Your task to perform on an android device: install app "Google Find My Device" Image 0: 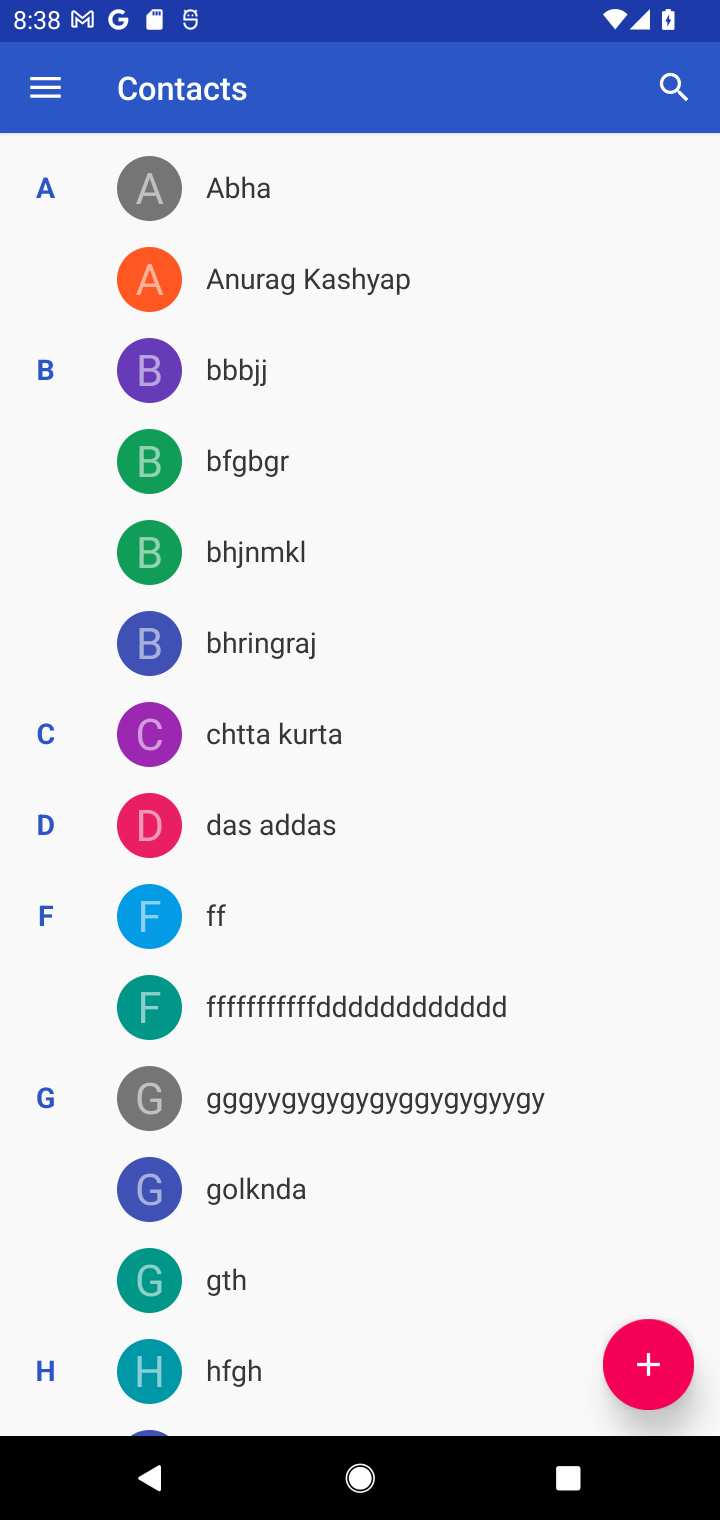
Step 0: press home button
Your task to perform on an android device: install app "Google Find My Device" Image 1: 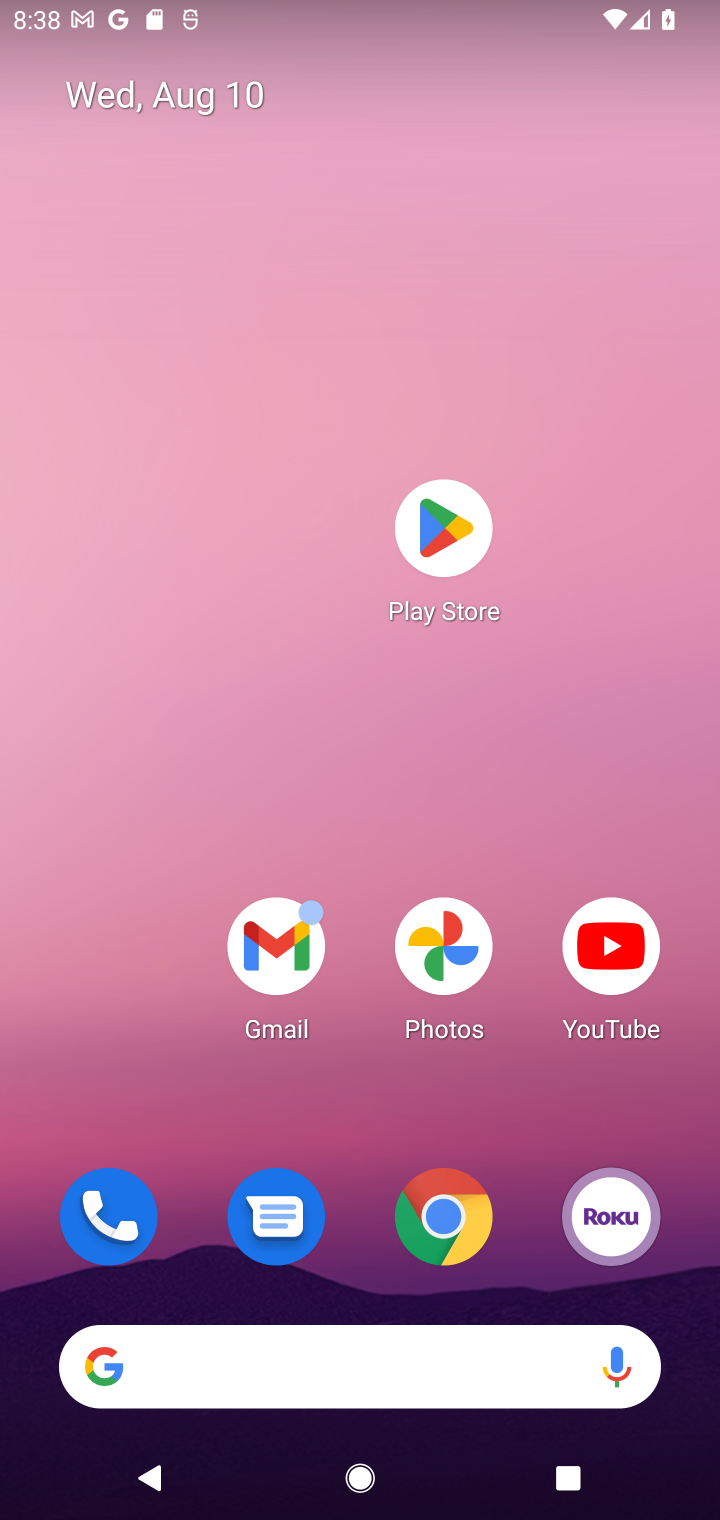
Step 1: click (442, 527)
Your task to perform on an android device: install app "Google Find My Device" Image 2: 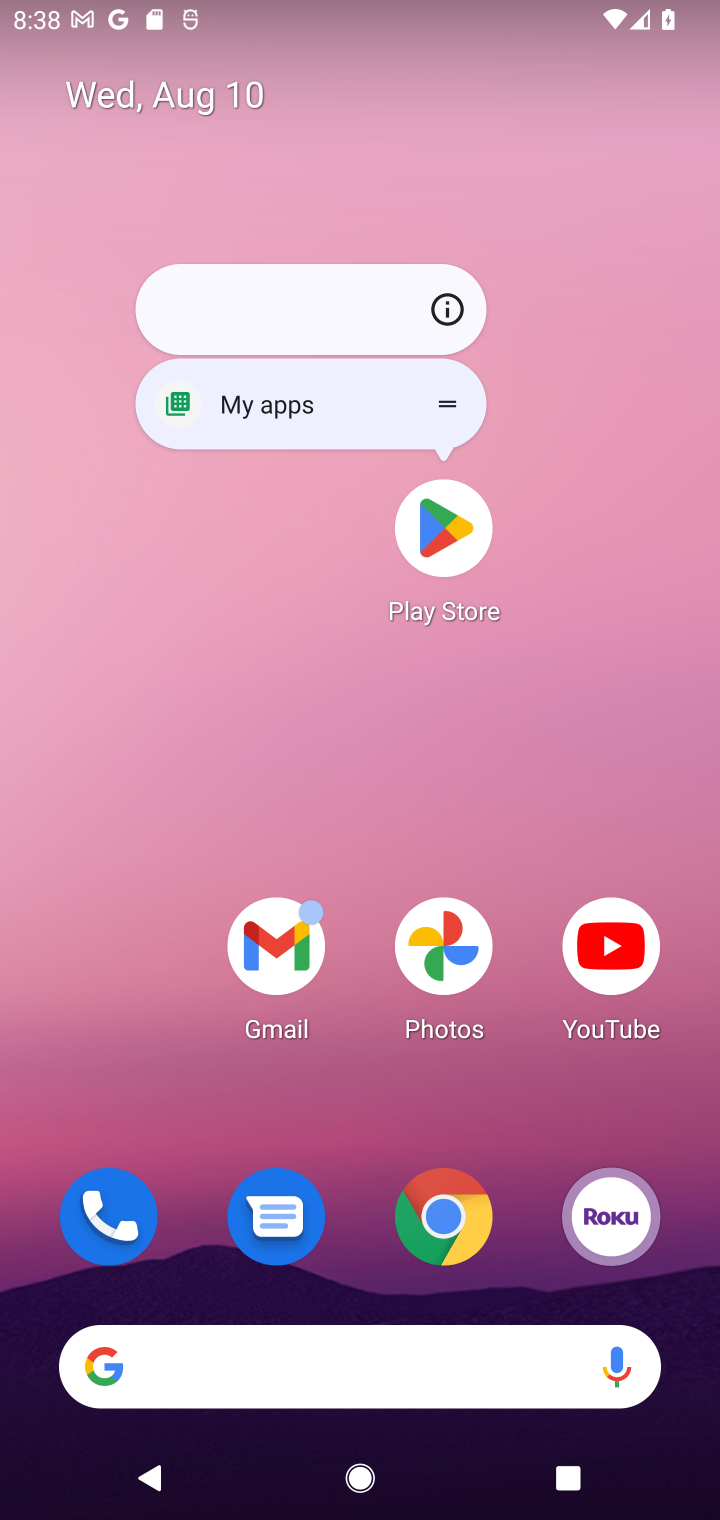
Step 2: click (442, 531)
Your task to perform on an android device: install app "Google Find My Device" Image 3: 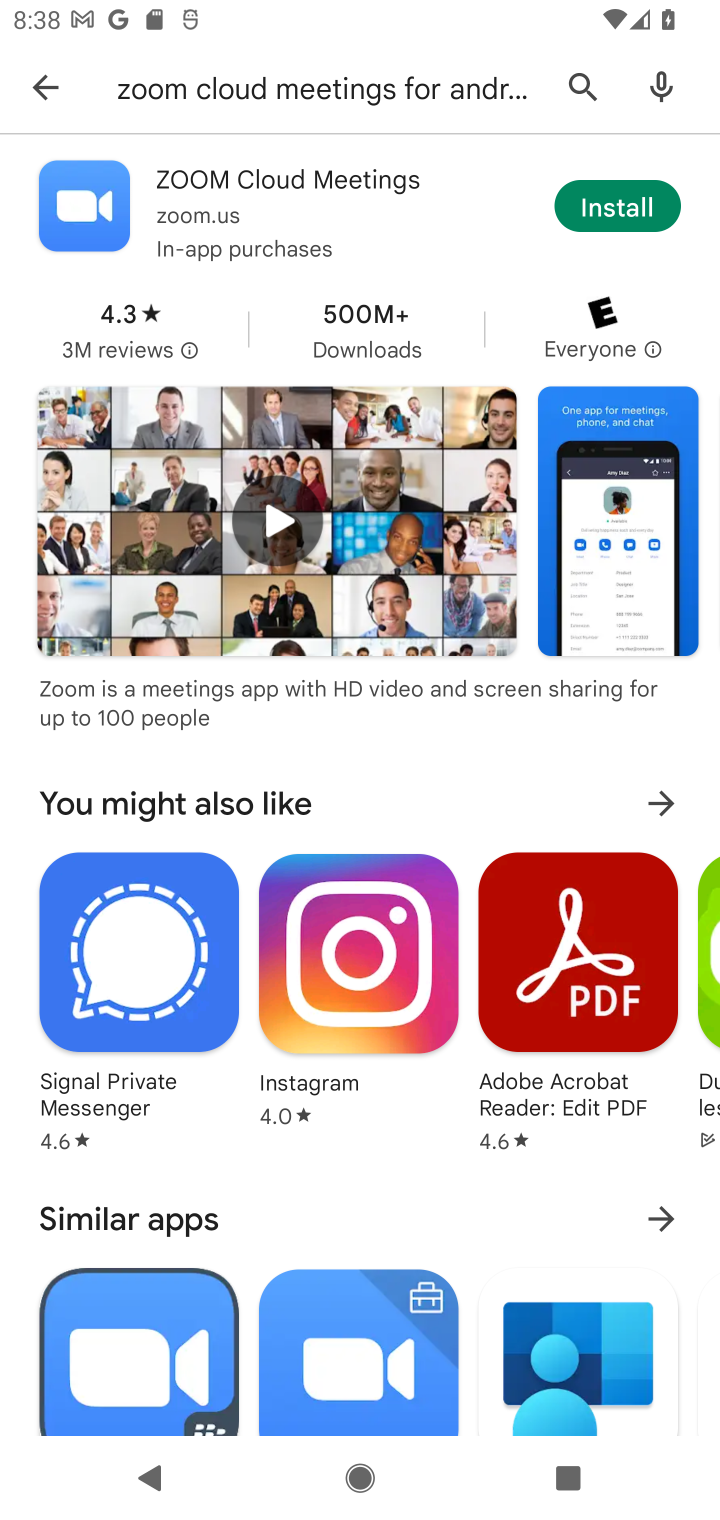
Step 3: click (567, 79)
Your task to perform on an android device: install app "Google Find My Device" Image 4: 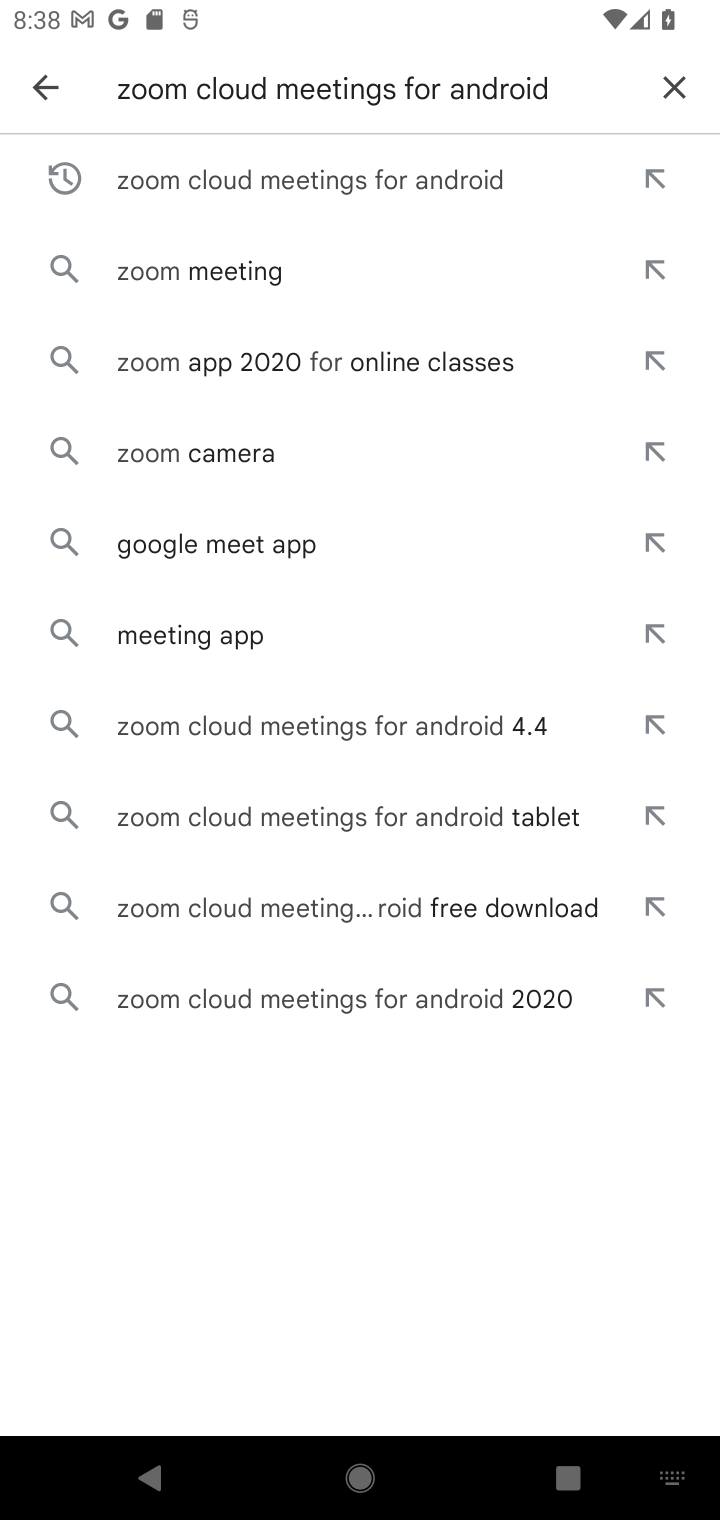
Step 4: click (673, 77)
Your task to perform on an android device: install app "Google Find My Device" Image 5: 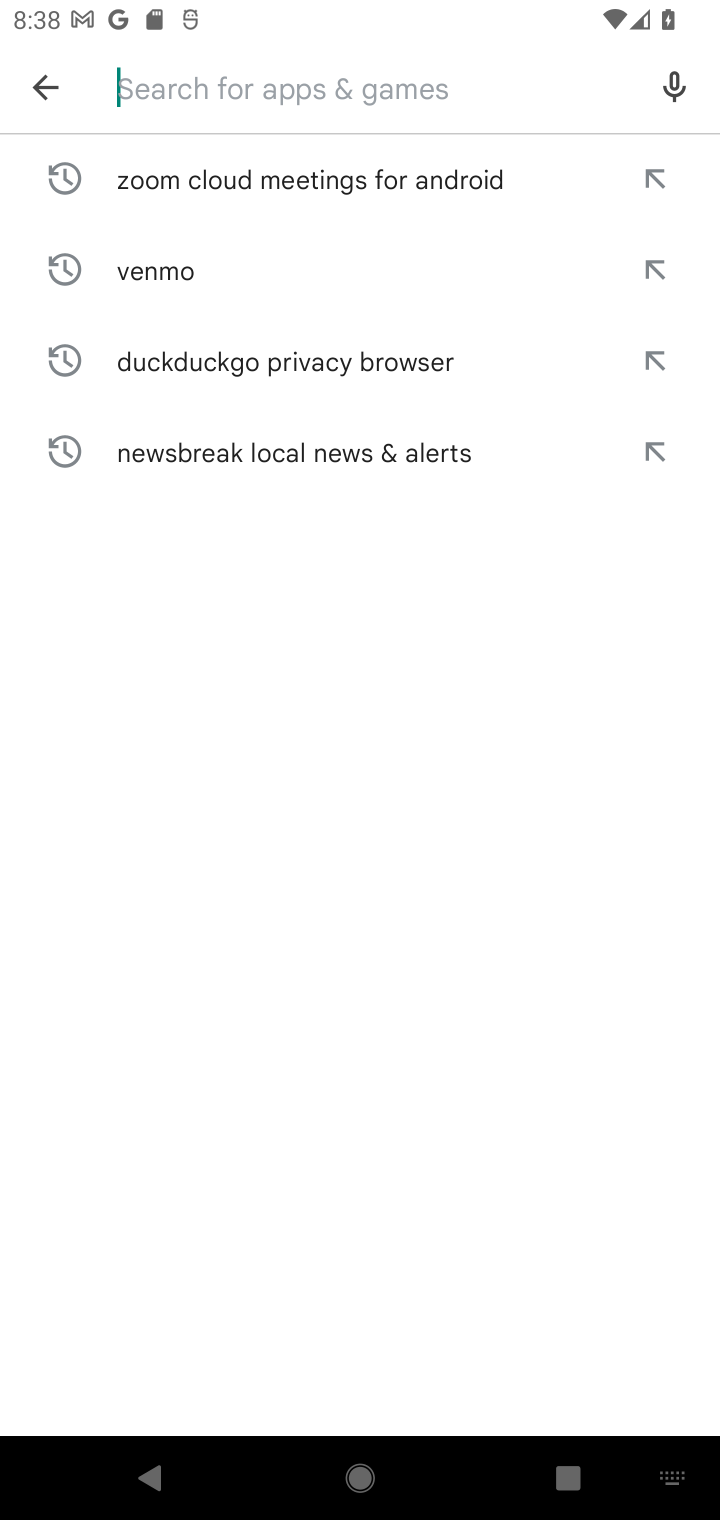
Step 5: type "Google Find My Device"
Your task to perform on an android device: install app "Google Find My Device" Image 6: 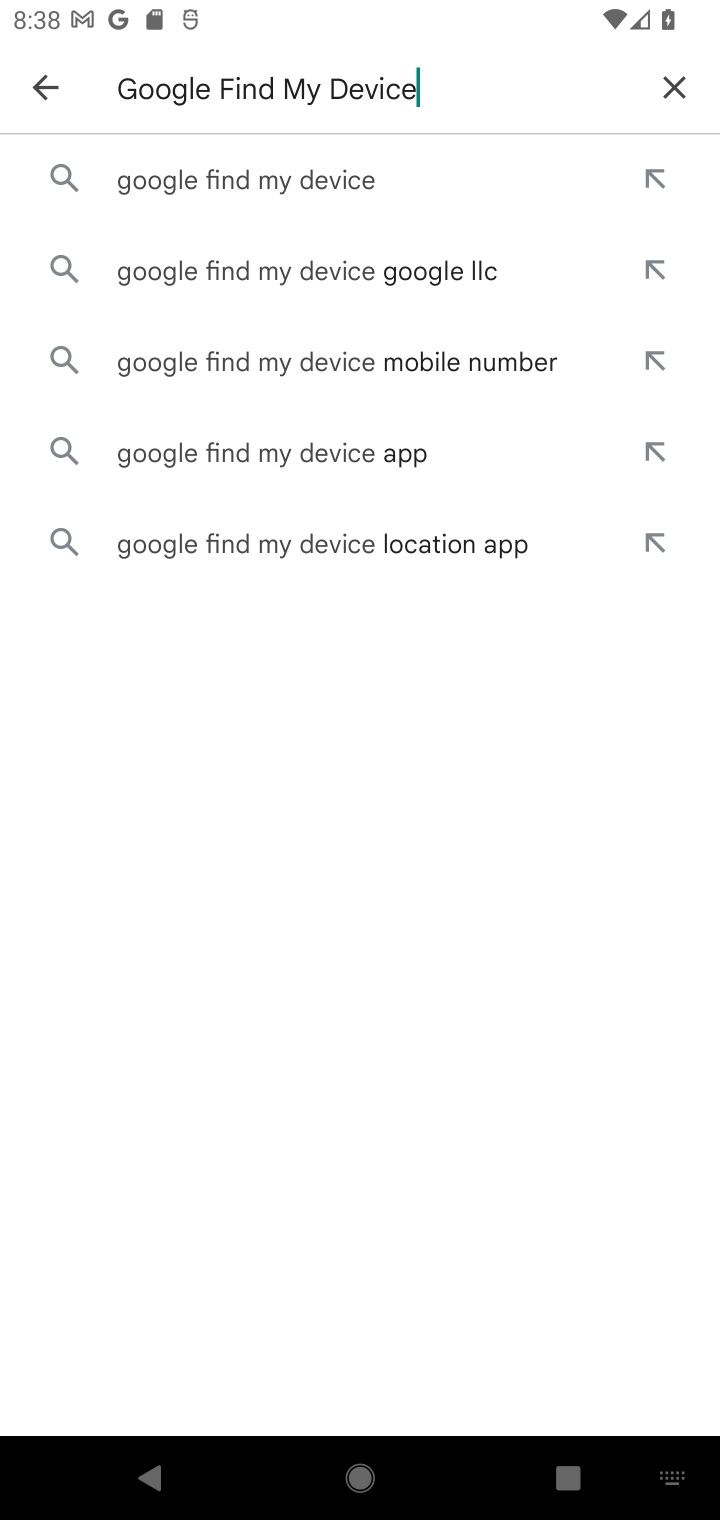
Step 6: click (313, 189)
Your task to perform on an android device: install app "Google Find My Device" Image 7: 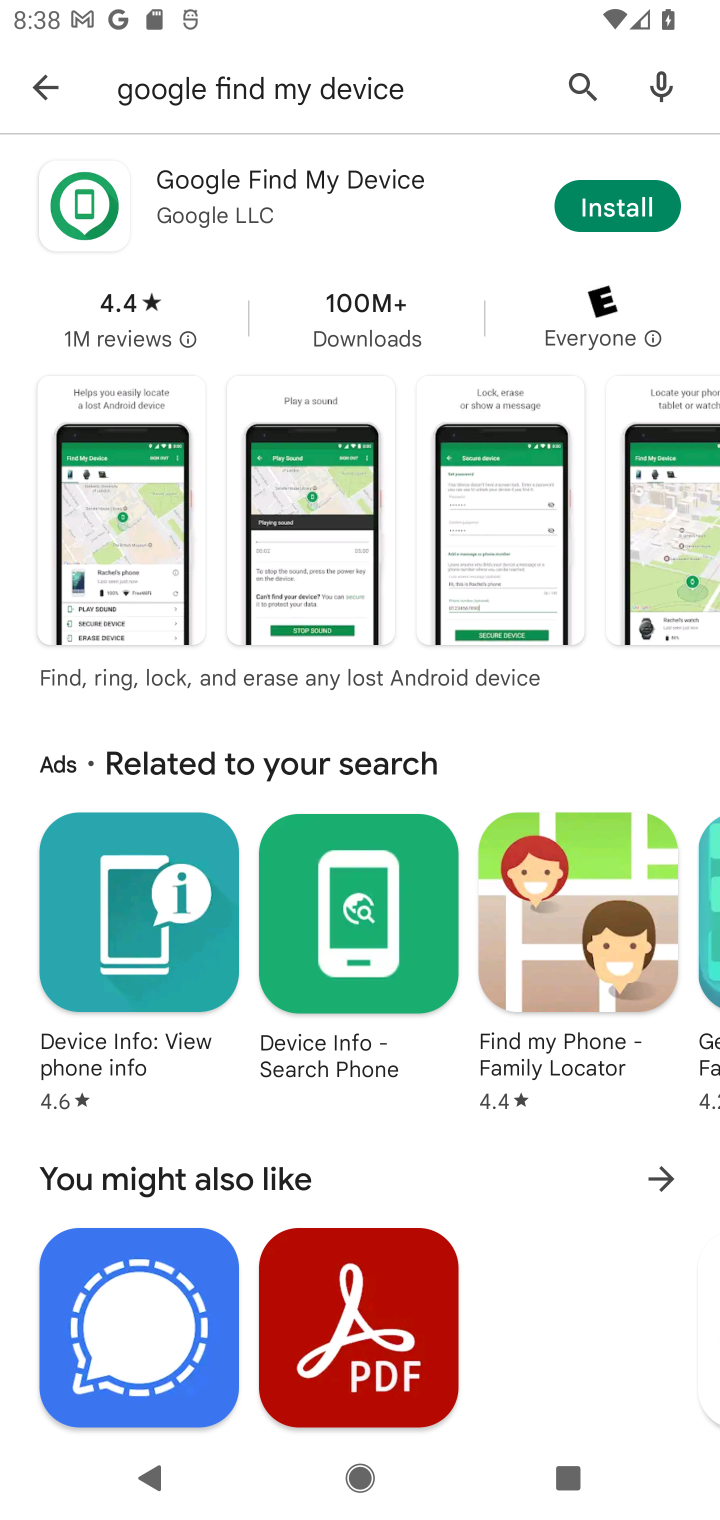
Step 7: click (628, 206)
Your task to perform on an android device: install app "Google Find My Device" Image 8: 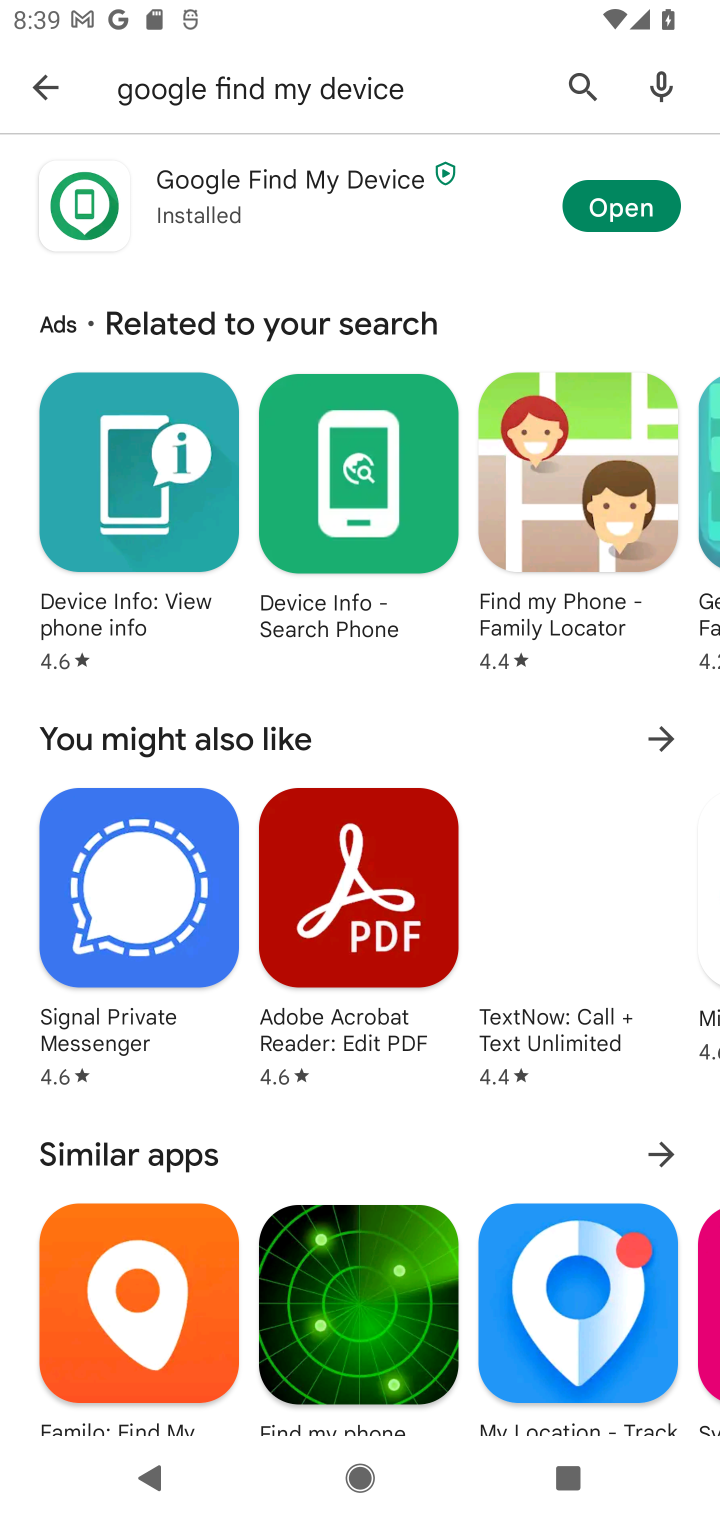
Step 8: task complete